Your task to perform on an android device: Find coffee shops on Maps Image 0: 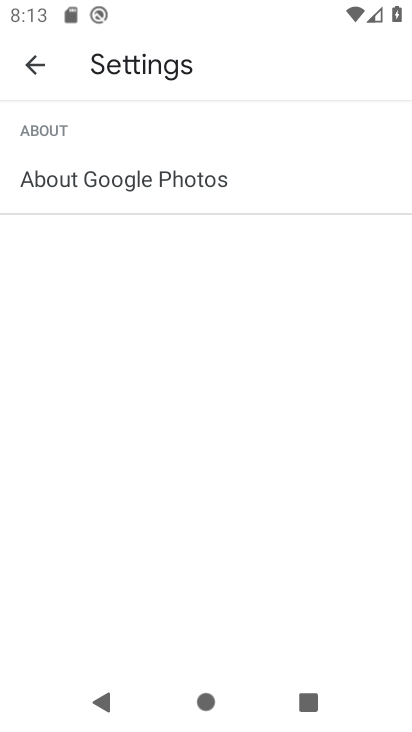
Step 0: press home button
Your task to perform on an android device: Find coffee shops on Maps Image 1: 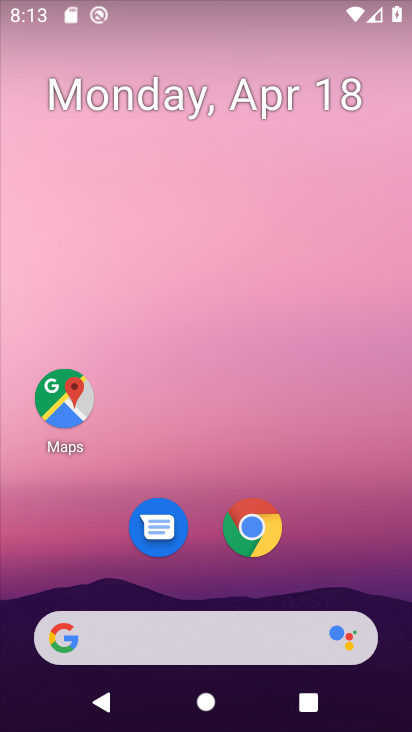
Step 1: click (73, 423)
Your task to perform on an android device: Find coffee shops on Maps Image 2: 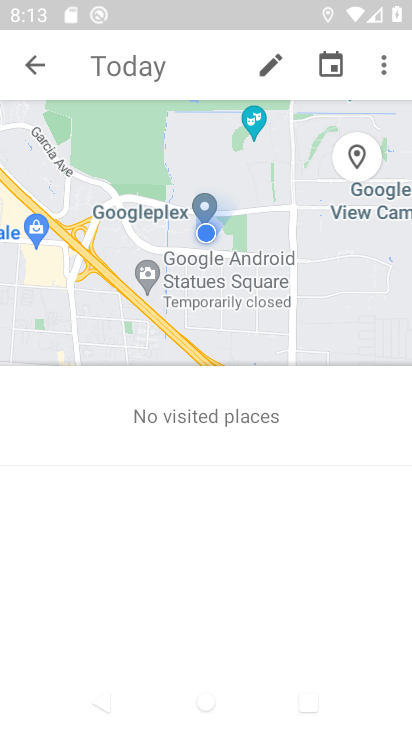
Step 2: click (39, 61)
Your task to perform on an android device: Find coffee shops on Maps Image 3: 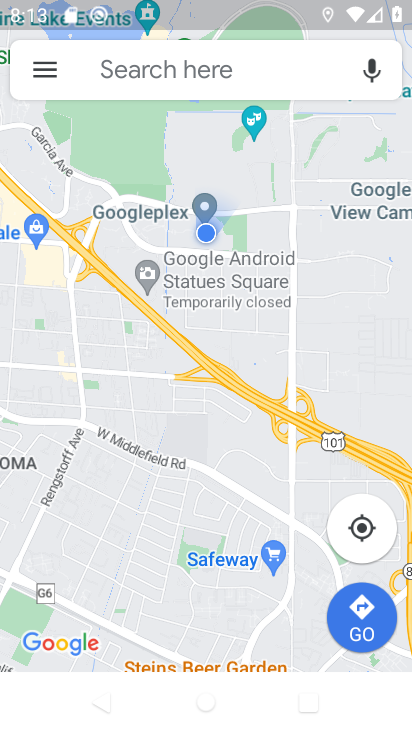
Step 3: click (171, 74)
Your task to perform on an android device: Find coffee shops on Maps Image 4: 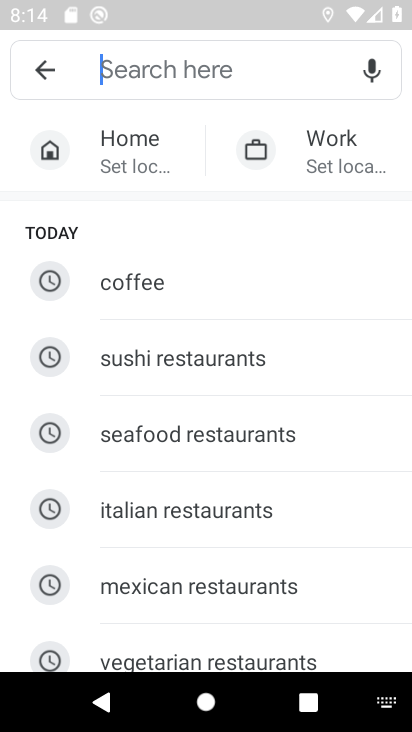
Step 4: type "coffee shops"
Your task to perform on an android device: Find coffee shops on Maps Image 5: 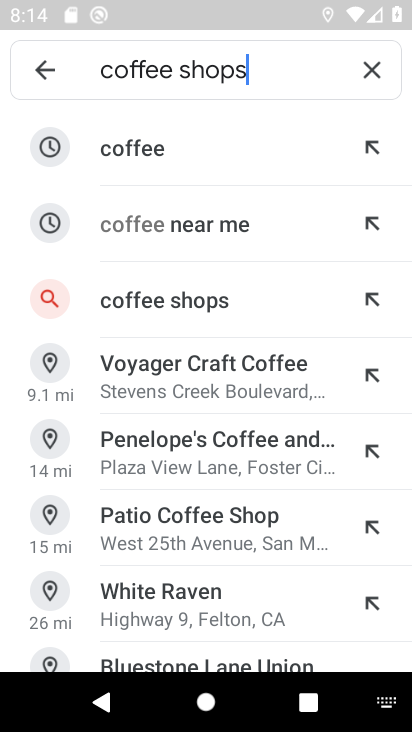
Step 5: click (180, 302)
Your task to perform on an android device: Find coffee shops on Maps Image 6: 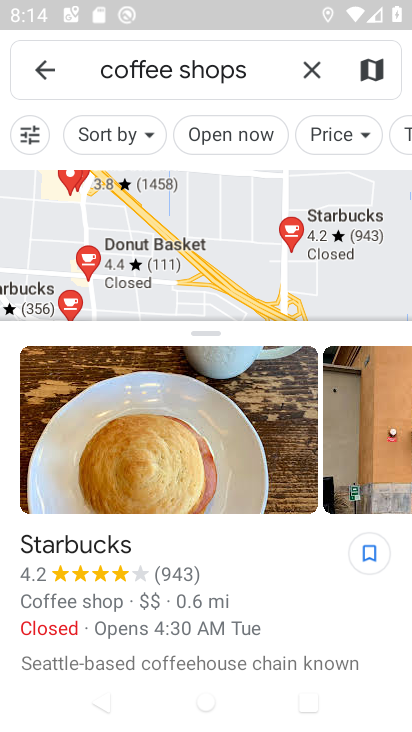
Step 6: task complete